Your task to perform on an android device: Turn off the flashlight Image 0: 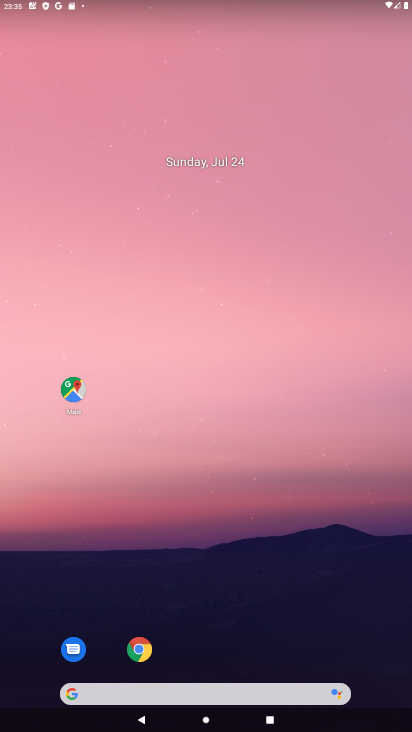
Step 0: drag from (225, 661) to (301, 2)
Your task to perform on an android device: Turn off the flashlight Image 1: 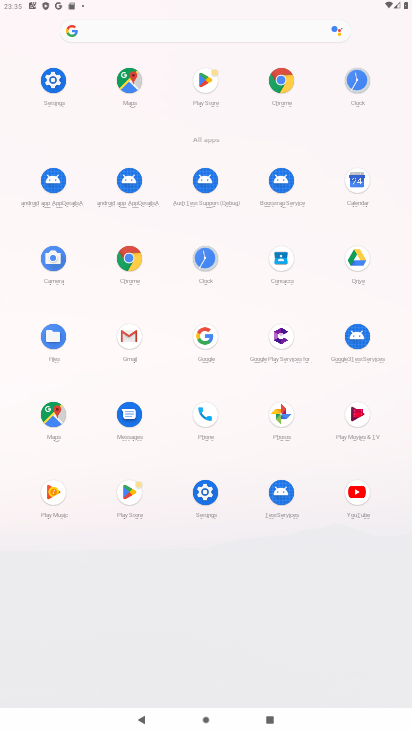
Step 1: click (51, 77)
Your task to perform on an android device: Turn off the flashlight Image 2: 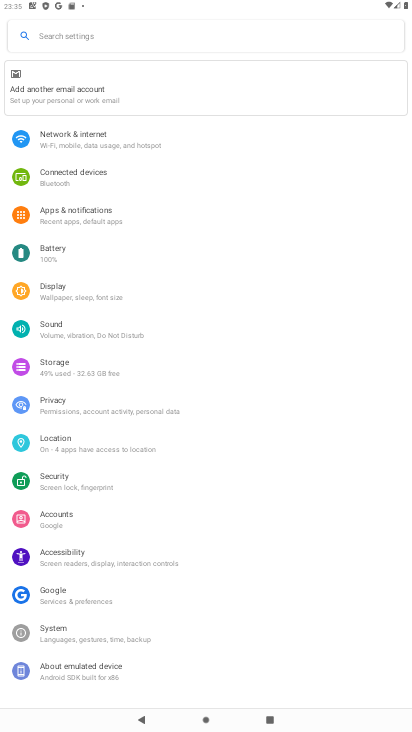
Step 2: click (85, 35)
Your task to perform on an android device: Turn off the flashlight Image 3: 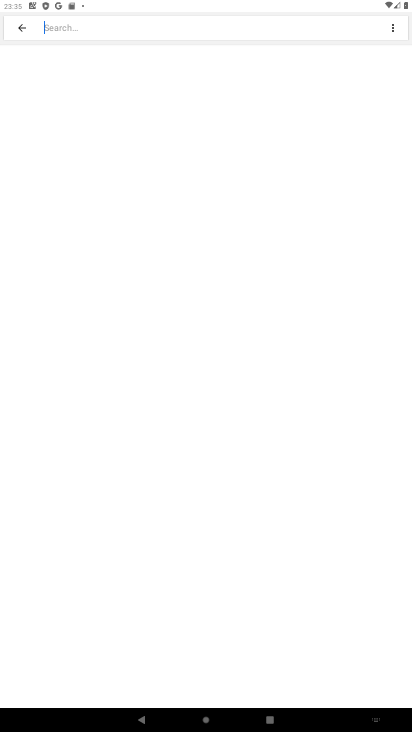
Step 3: type "flashlight"
Your task to perform on an android device: Turn off the flashlight Image 4: 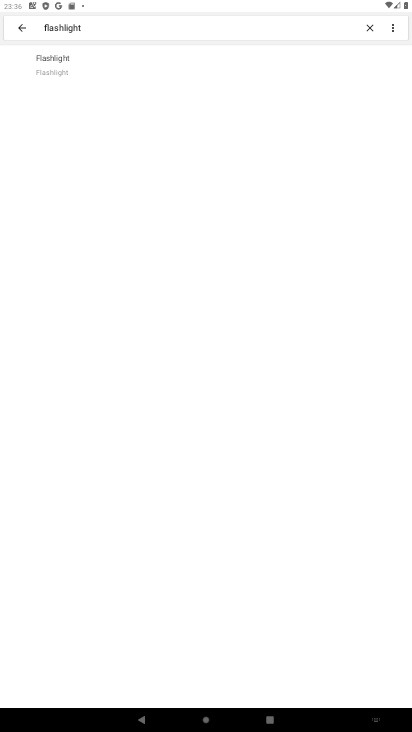
Step 4: click (71, 62)
Your task to perform on an android device: Turn off the flashlight Image 5: 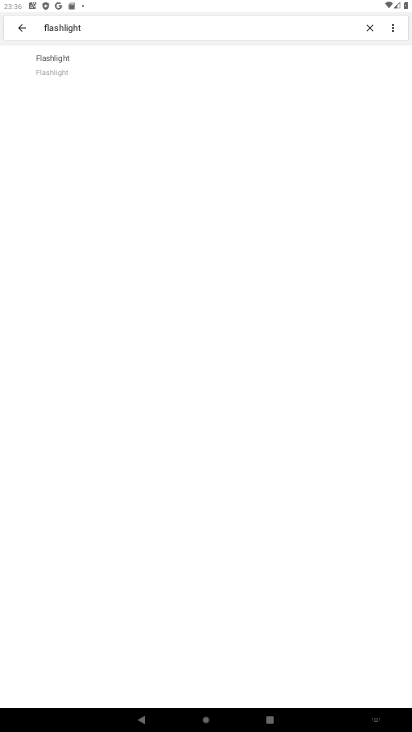
Step 5: click (102, 66)
Your task to perform on an android device: Turn off the flashlight Image 6: 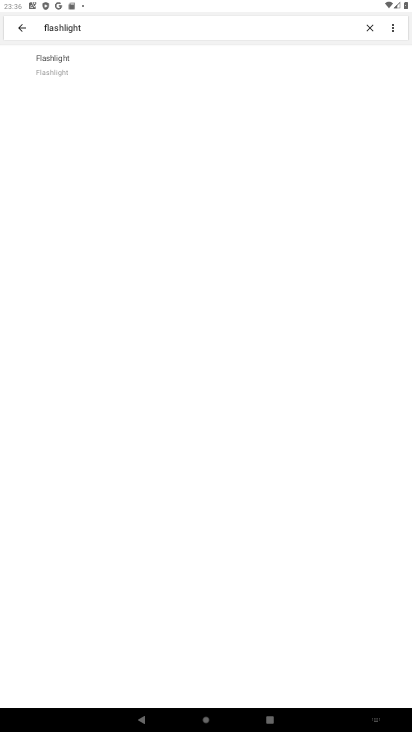
Step 6: task complete